Your task to perform on an android device: Go to settings Image 0: 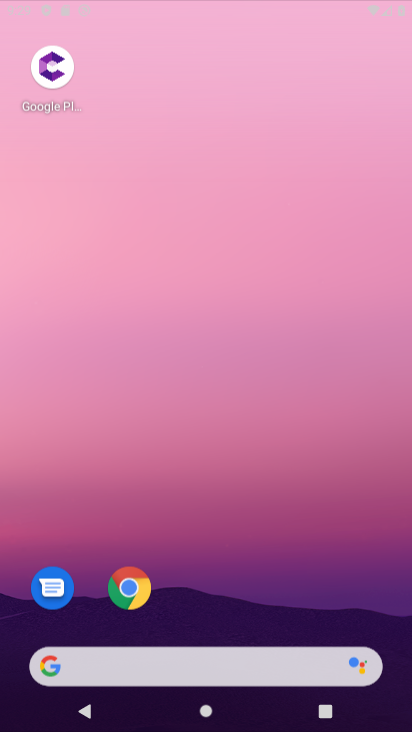
Step 0: drag from (306, 518) to (241, 74)
Your task to perform on an android device: Go to settings Image 1: 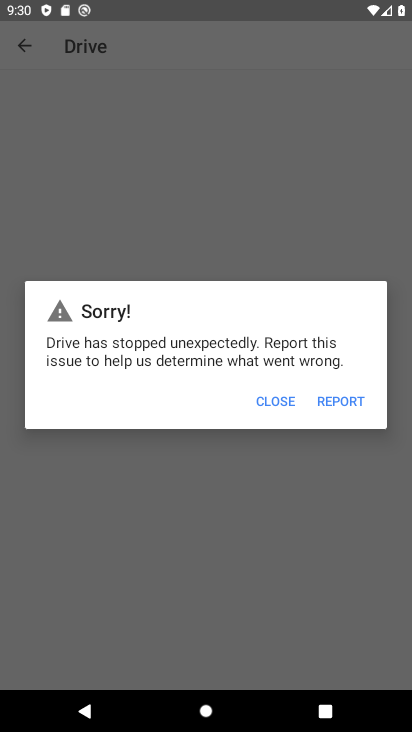
Step 1: press home button
Your task to perform on an android device: Go to settings Image 2: 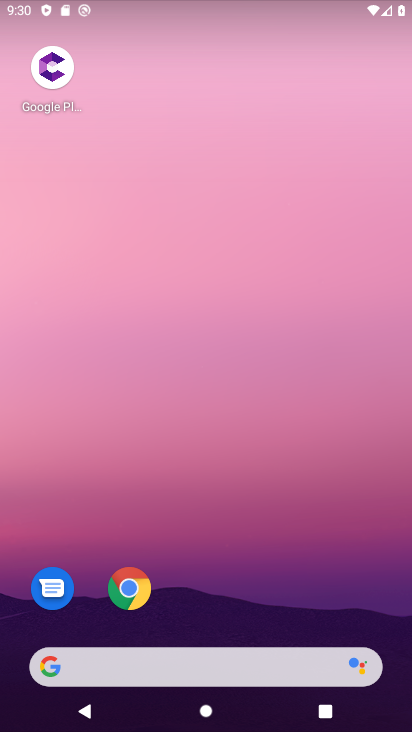
Step 2: drag from (223, 582) to (218, 86)
Your task to perform on an android device: Go to settings Image 3: 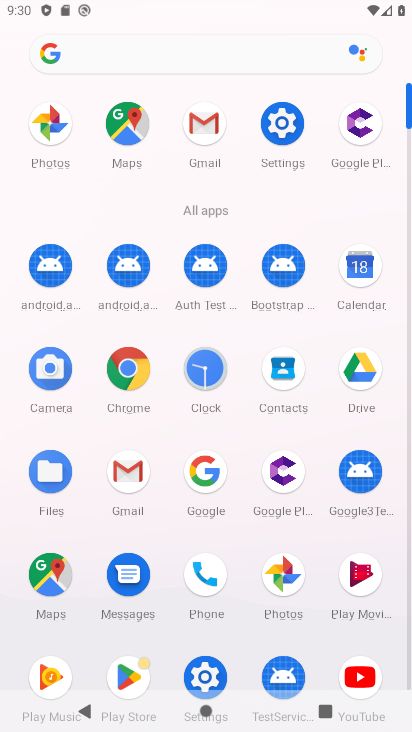
Step 3: click (287, 134)
Your task to perform on an android device: Go to settings Image 4: 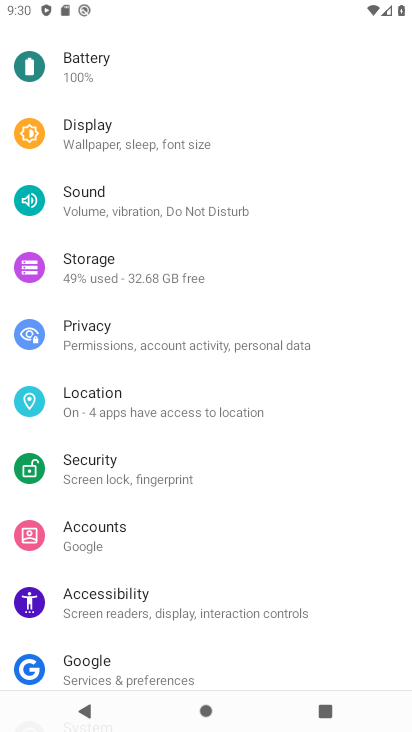
Step 4: task complete